Your task to perform on an android device: Search for the new Apple Watch on Best Buy Image 0: 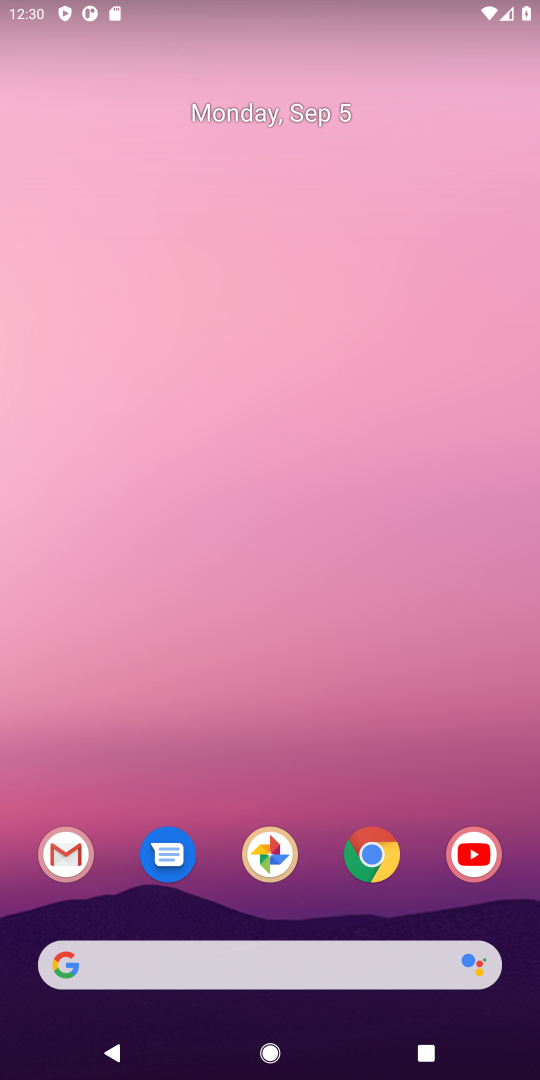
Step 0: click (378, 857)
Your task to perform on an android device: Search for the new Apple Watch on Best Buy Image 1: 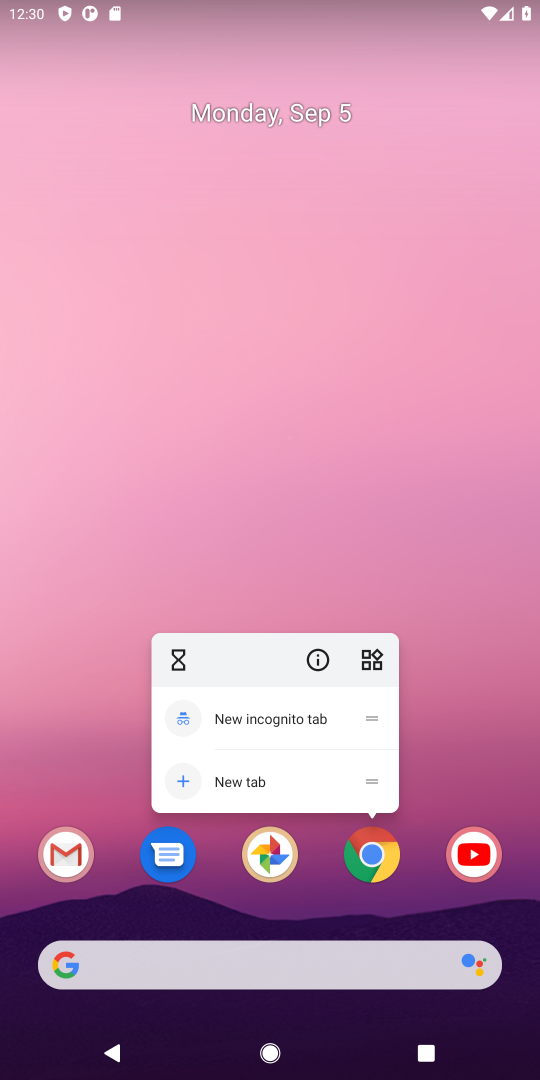
Step 1: click (378, 857)
Your task to perform on an android device: Search for the new Apple Watch on Best Buy Image 2: 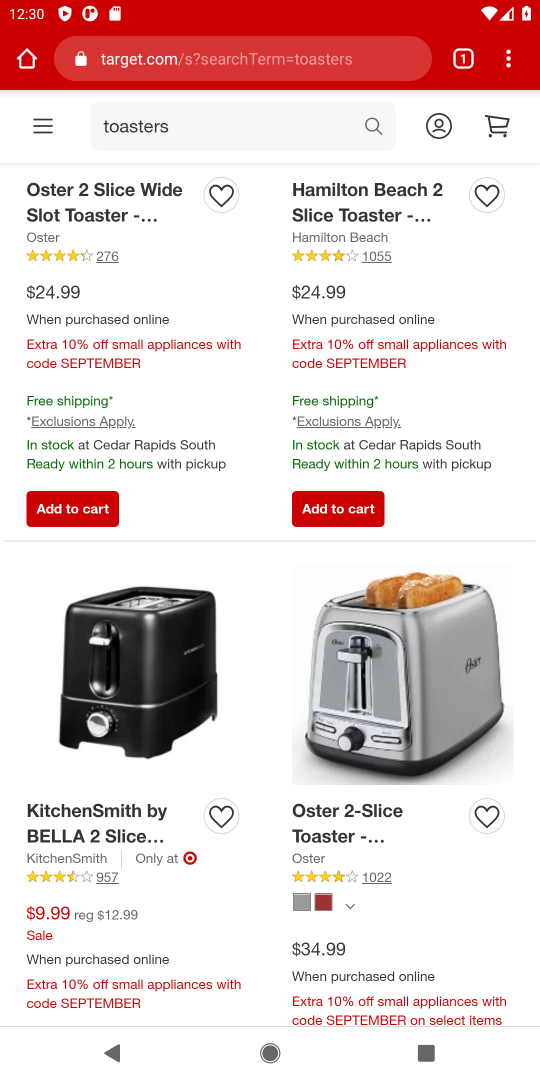
Step 2: click (321, 53)
Your task to perform on an android device: Search for the new Apple Watch on Best Buy Image 3: 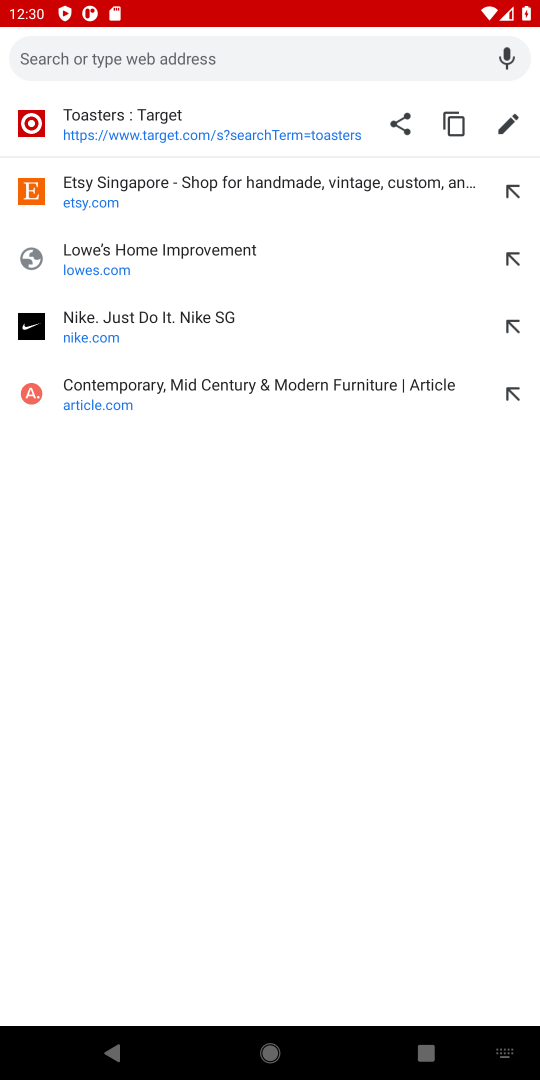
Step 3: click (306, 63)
Your task to perform on an android device: Search for the new Apple Watch on Best Buy Image 4: 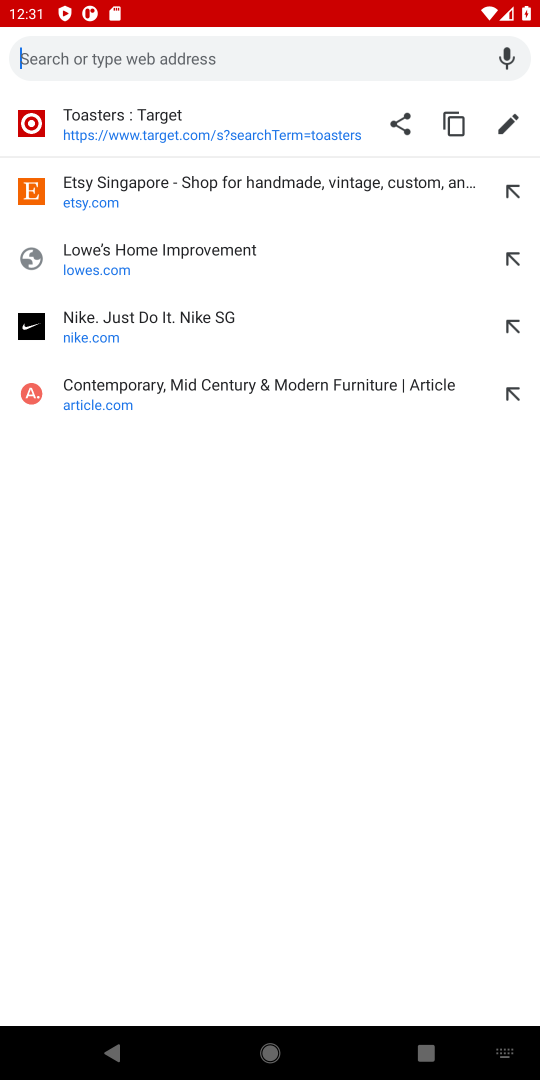
Step 4: type "Best Buy"
Your task to perform on an android device: Search for the new Apple Watch on Best Buy Image 5: 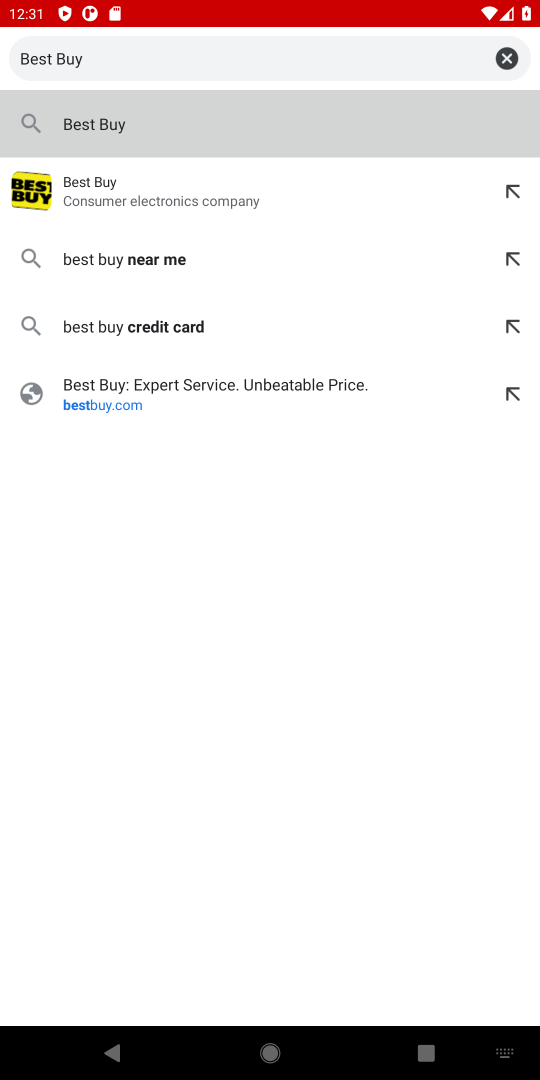
Step 5: press enter
Your task to perform on an android device: Search for the new Apple Watch on Best Buy Image 6: 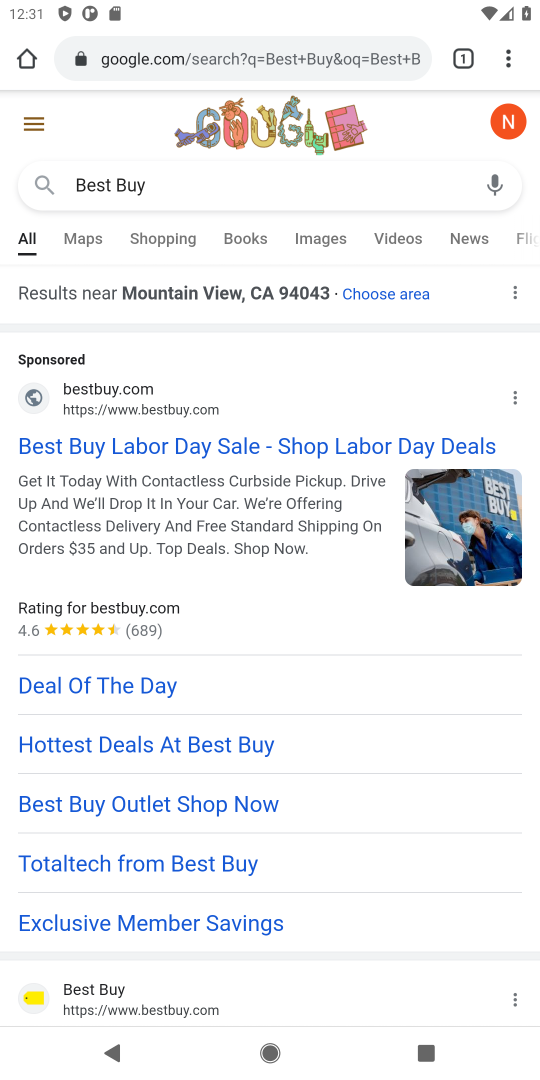
Step 6: drag from (331, 853) to (411, 260)
Your task to perform on an android device: Search for the new Apple Watch on Best Buy Image 7: 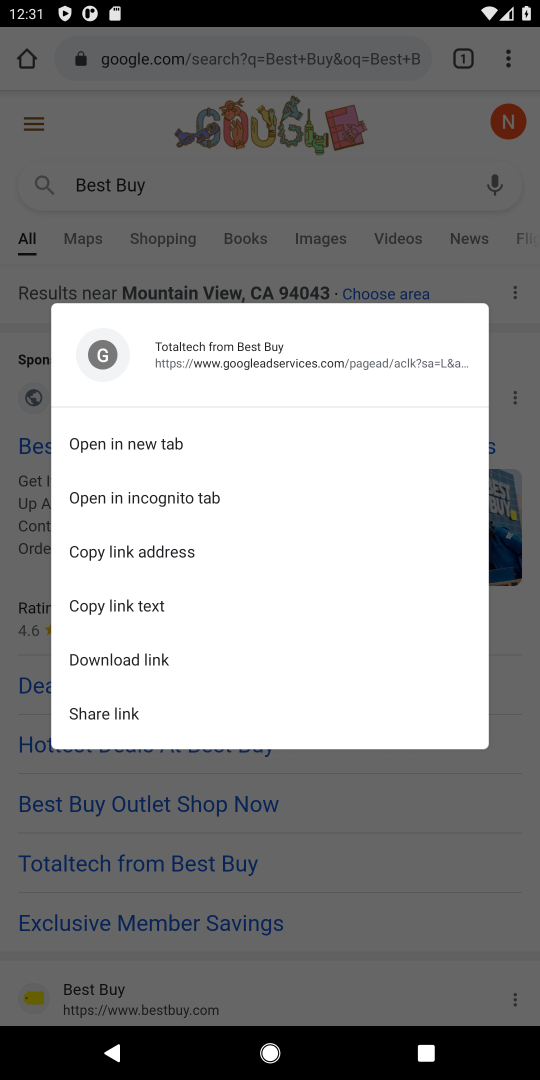
Step 7: click (518, 698)
Your task to perform on an android device: Search for the new Apple Watch on Best Buy Image 8: 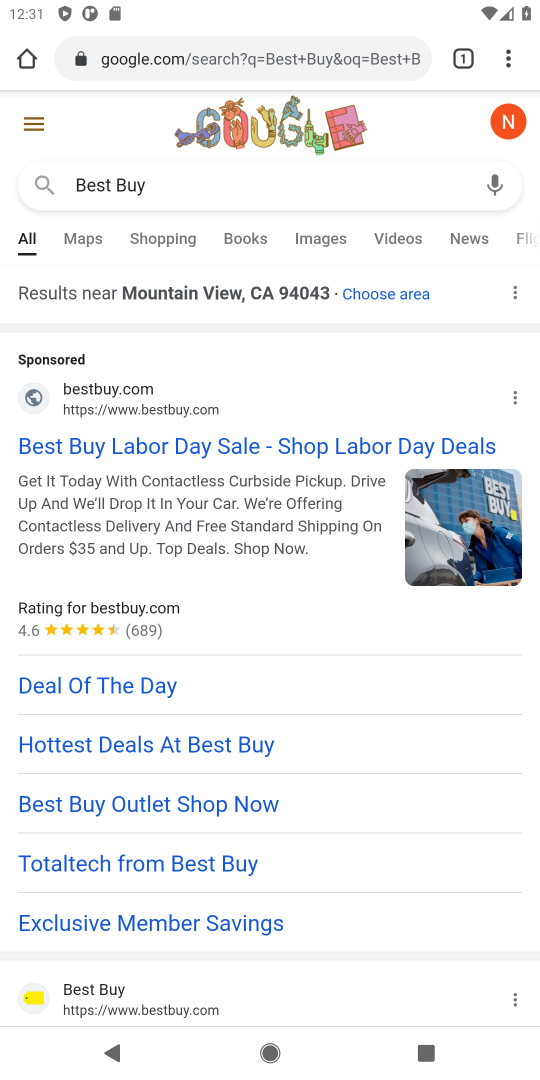
Step 8: drag from (213, 889) to (411, 274)
Your task to perform on an android device: Search for the new Apple Watch on Best Buy Image 9: 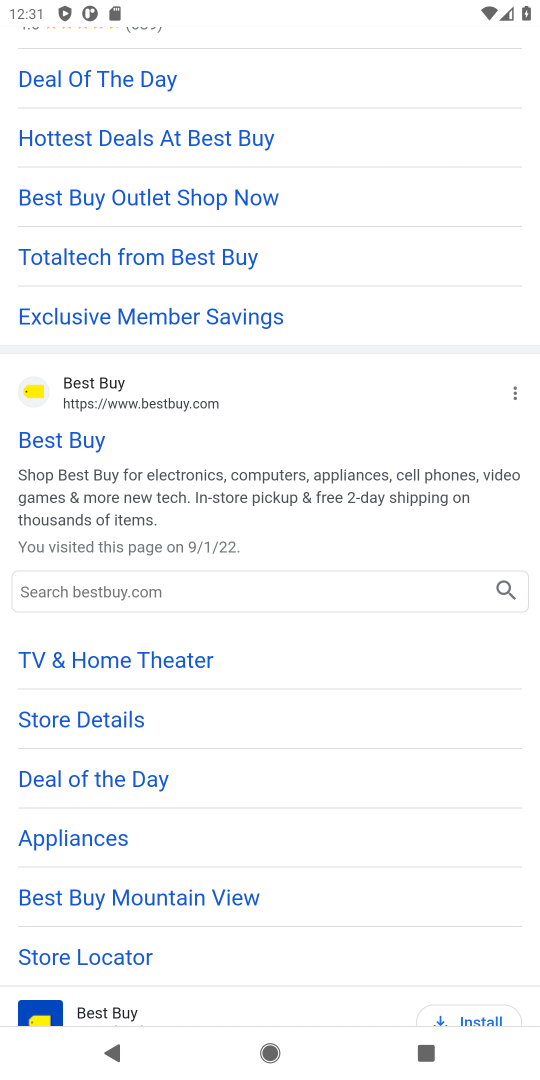
Step 9: click (79, 442)
Your task to perform on an android device: Search for the new Apple Watch on Best Buy Image 10: 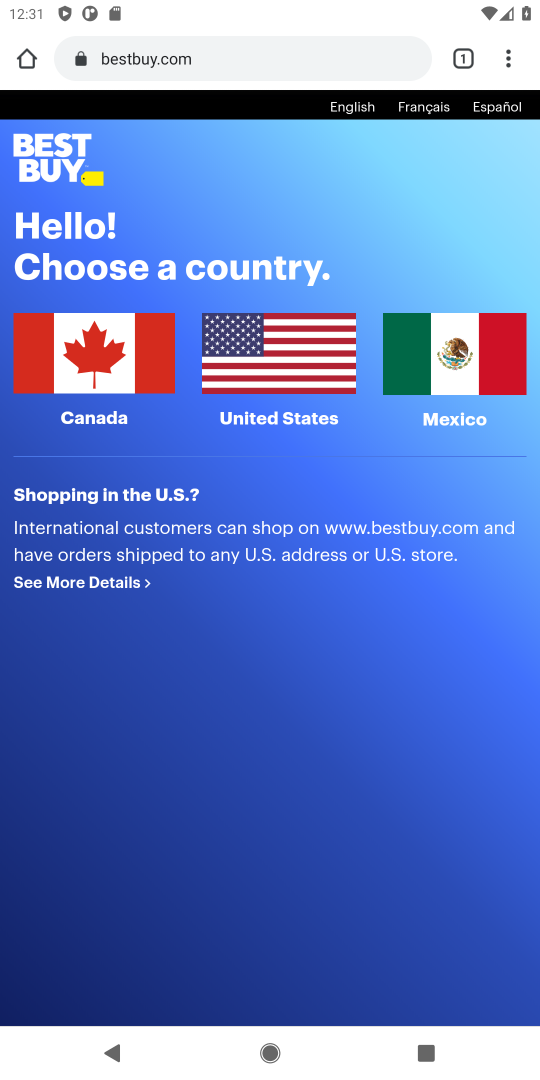
Step 10: click (285, 345)
Your task to perform on an android device: Search for the new Apple Watch on Best Buy Image 11: 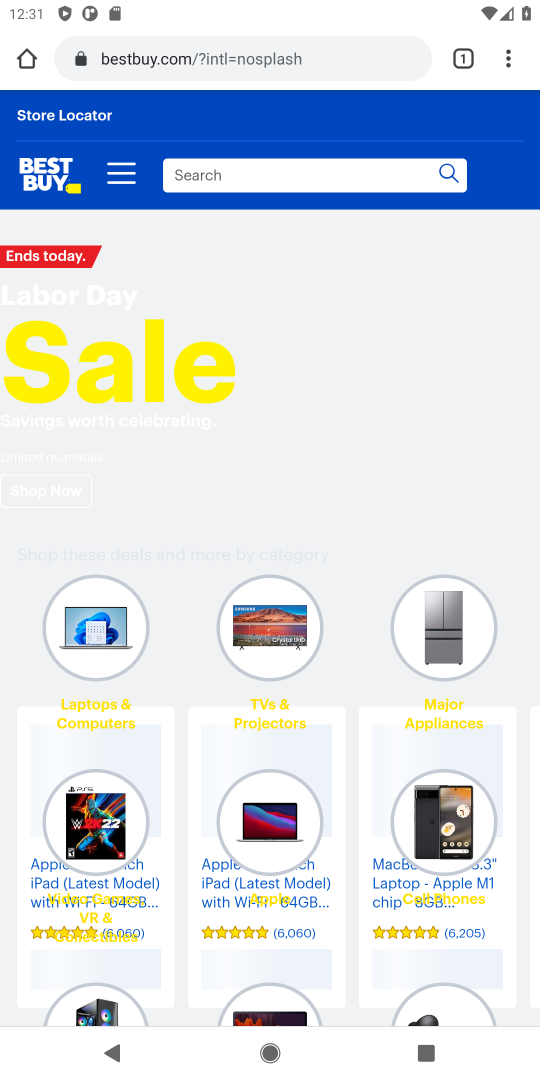
Step 11: click (331, 183)
Your task to perform on an android device: Search for the new Apple Watch on Best Buy Image 12: 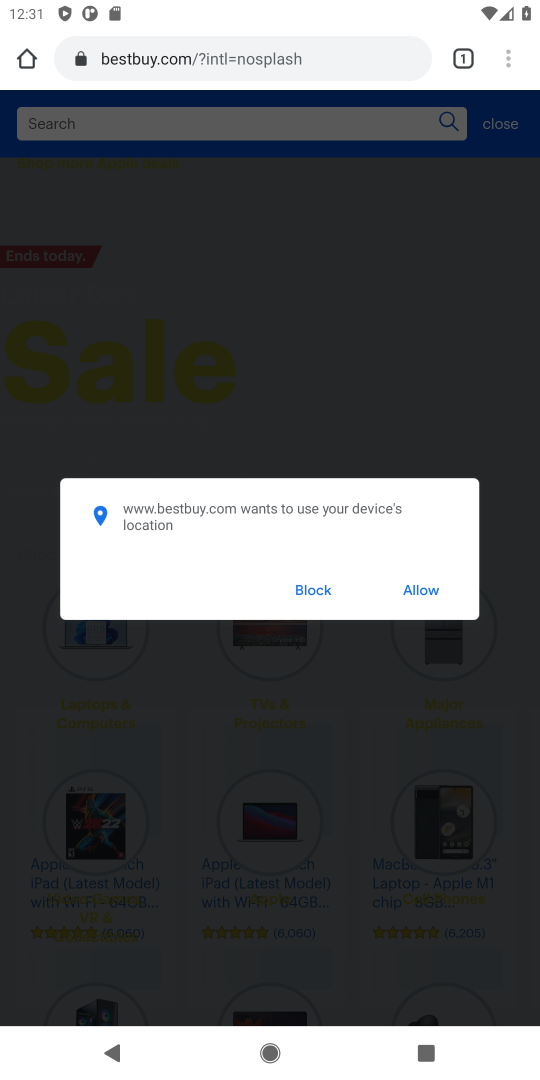
Step 12: click (323, 596)
Your task to perform on an android device: Search for the new Apple Watch on Best Buy Image 13: 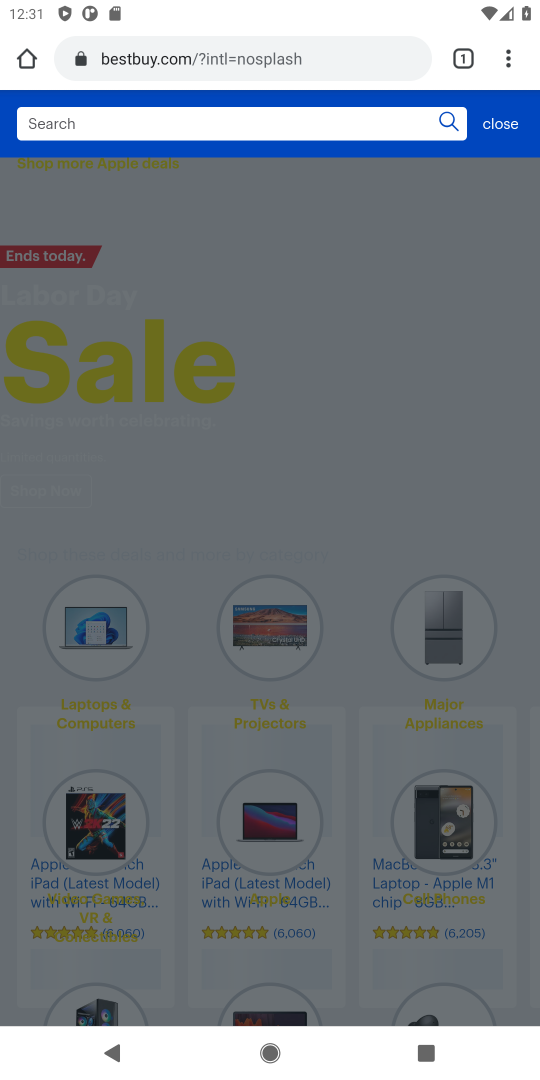
Step 13: click (227, 129)
Your task to perform on an android device: Search for the new Apple Watch on Best Buy Image 14: 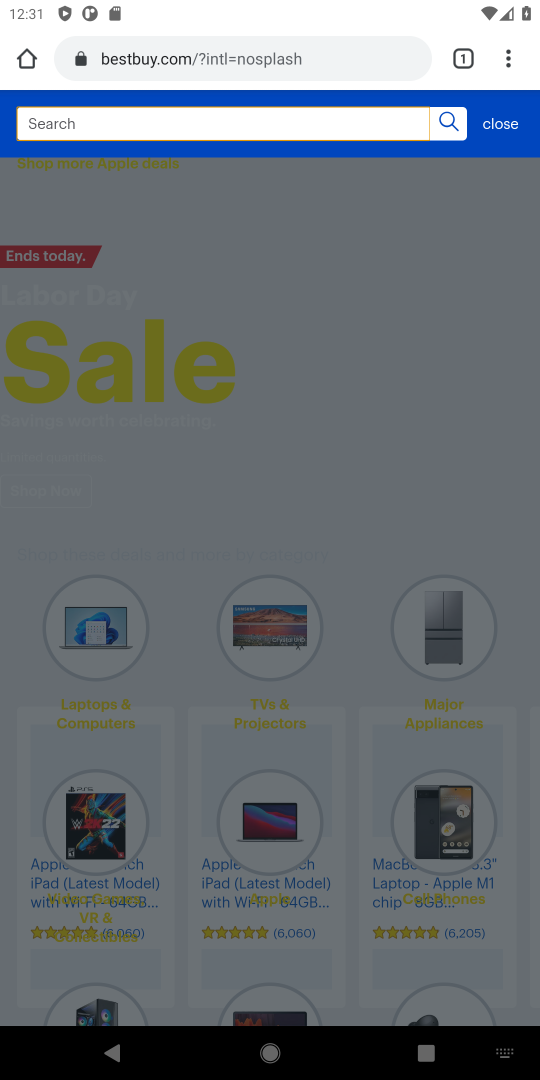
Step 14: type "Apple Watch"
Your task to perform on an android device: Search for the new Apple Watch on Best Buy Image 15: 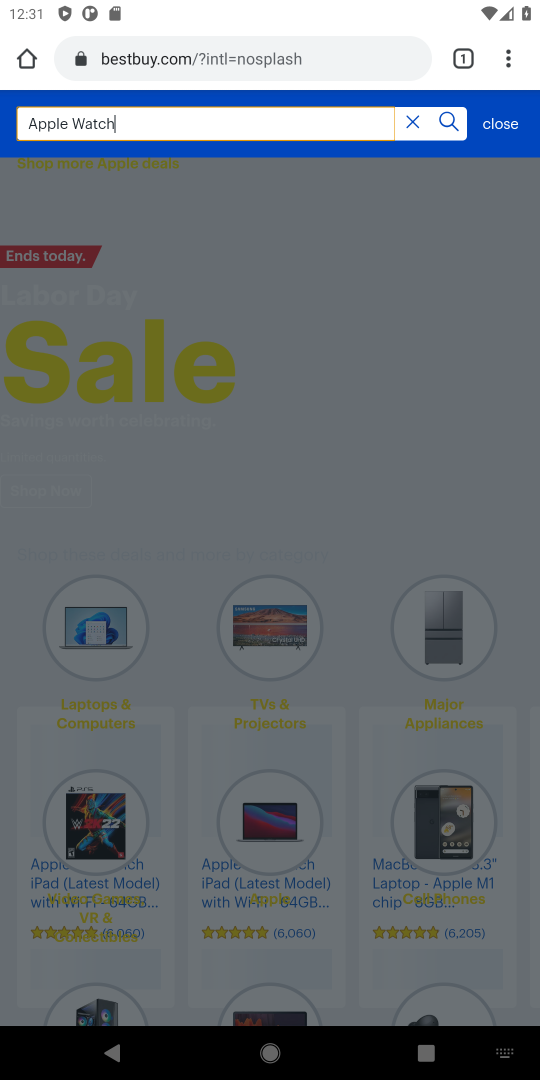
Step 15: press enter
Your task to perform on an android device: Search for the new Apple Watch on Best Buy Image 16: 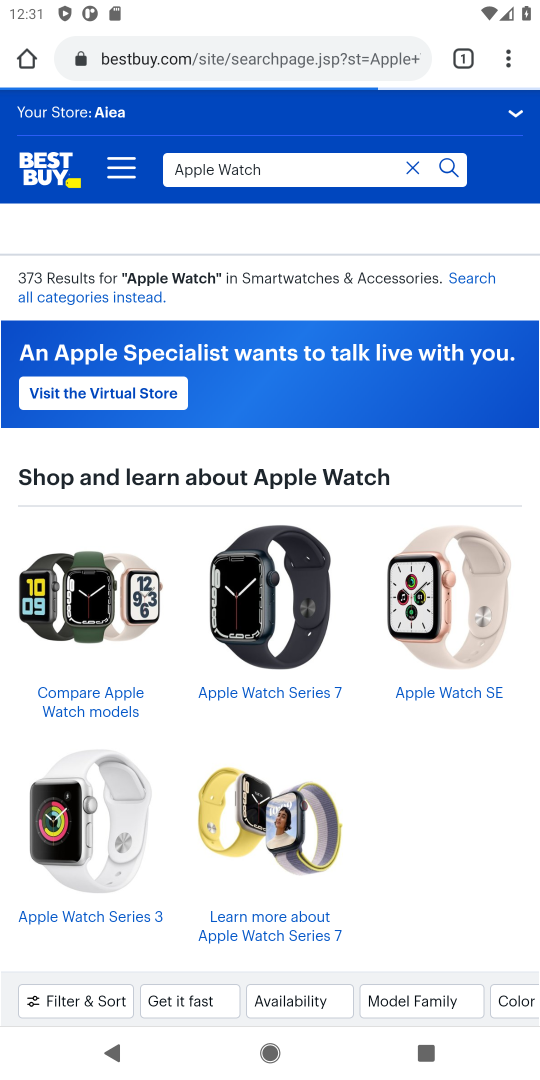
Step 16: task complete